Your task to perform on an android device: Open calendar and show me the fourth week of next month Image 0: 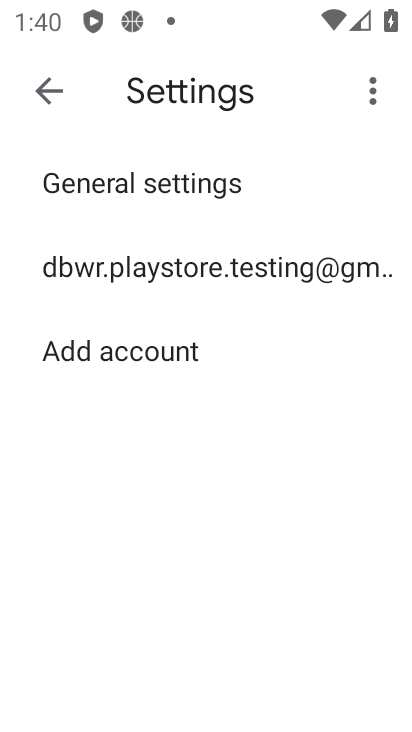
Step 0: press back button
Your task to perform on an android device: Open calendar and show me the fourth week of next month Image 1: 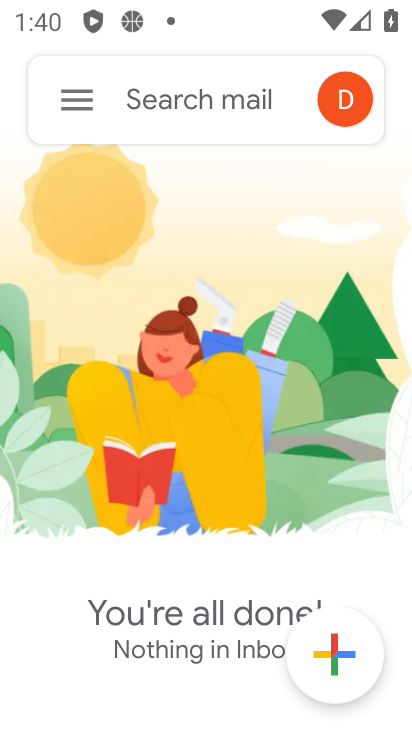
Step 1: press back button
Your task to perform on an android device: Open calendar and show me the fourth week of next month Image 2: 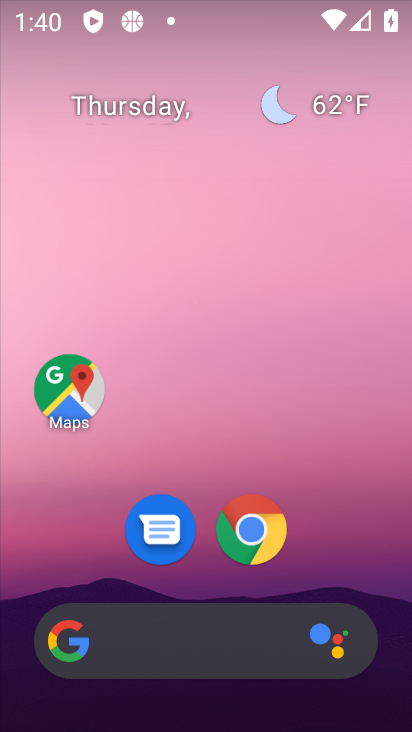
Step 2: drag from (330, 565) to (228, 64)
Your task to perform on an android device: Open calendar and show me the fourth week of next month Image 3: 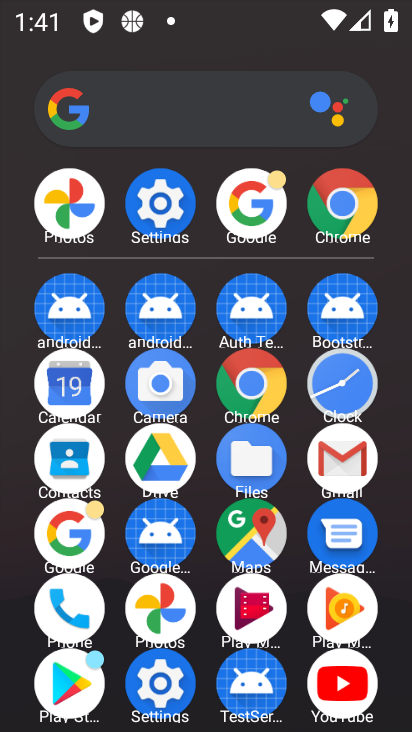
Step 3: click (71, 390)
Your task to perform on an android device: Open calendar and show me the fourth week of next month Image 4: 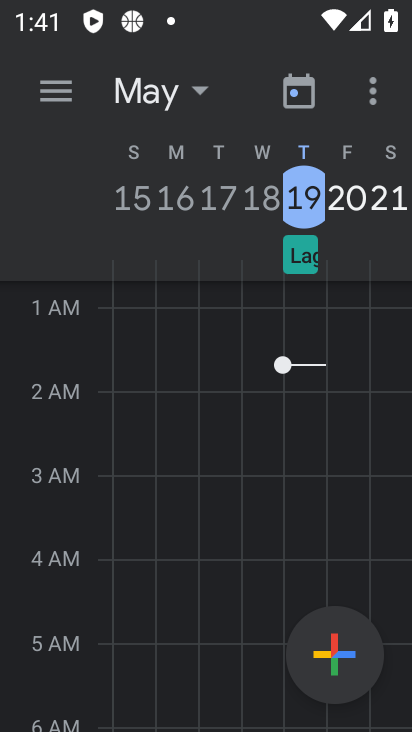
Step 4: click (297, 95)
Your task to perform on an android device: Open calendar and show me the fourth week of next month Image 5: 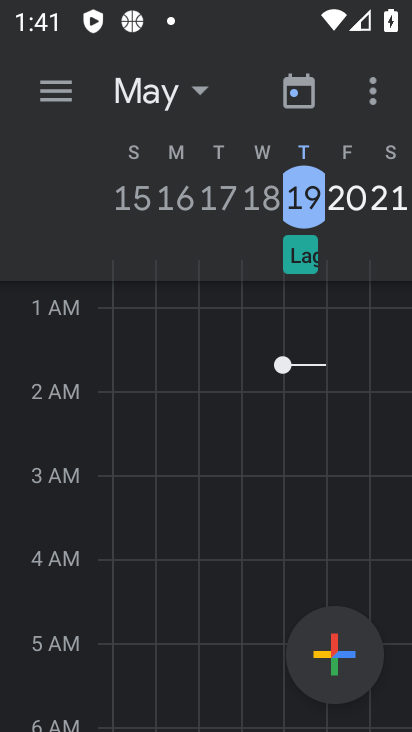
Step 5: click (202, 94)
Your task to perform on an android device: Open calendar and show me the fourth week of next month Image 6: 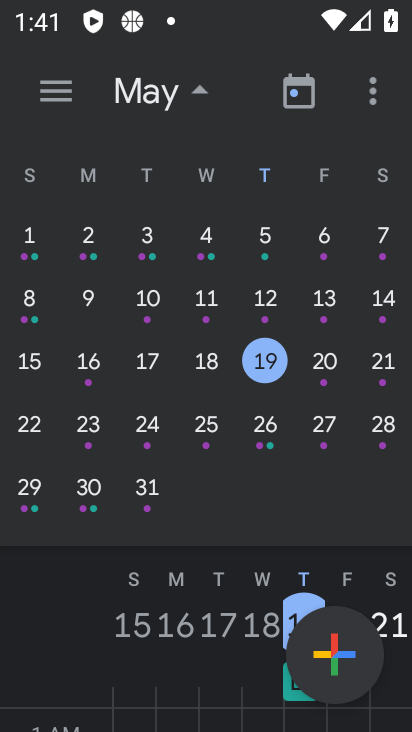
Step 6: drag from (368, 396) to (2, 379)
Your task to perform on an android device: Open calendar and show me the fourth week of next month Image 7: 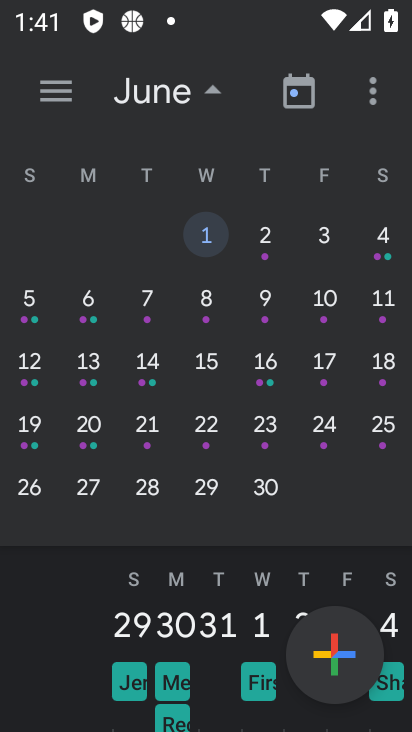
Step 7: click (88, 478)
Your task to perform on an android device: Open calendar and show me the fourth week of next month Image 8: 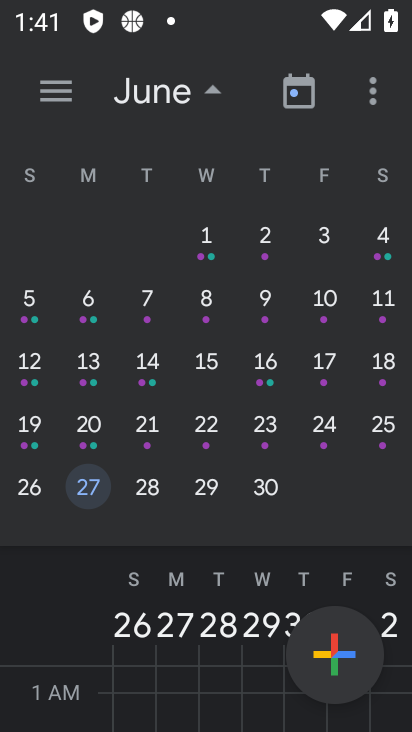
Step 8: click (56, 93)
Your task to perform on an android device: Open calendar and show me the fourth week of next month Image 9: 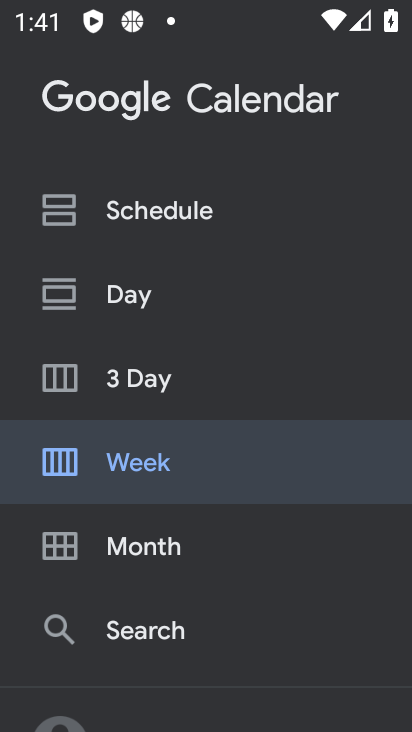
Step 9: click (130, 453)
Your task to perform on an android device: Open calendar and show me the fourth week of next month Image 10: 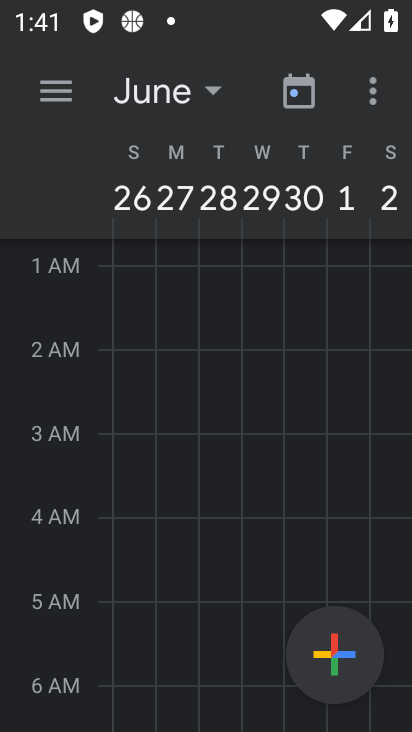
Step 10: task complete